Your task to perform on an android device: Open notification settings Image 0: 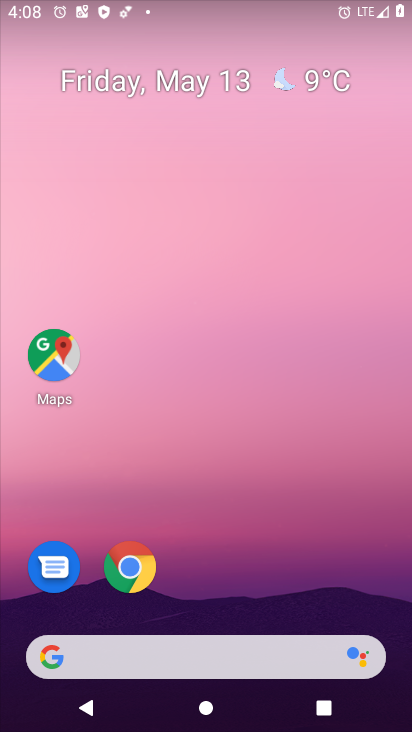
Step 0: drag from (303, 570) to (250, 16)
Your task to perform on an android device: Open notification settings Image 1: 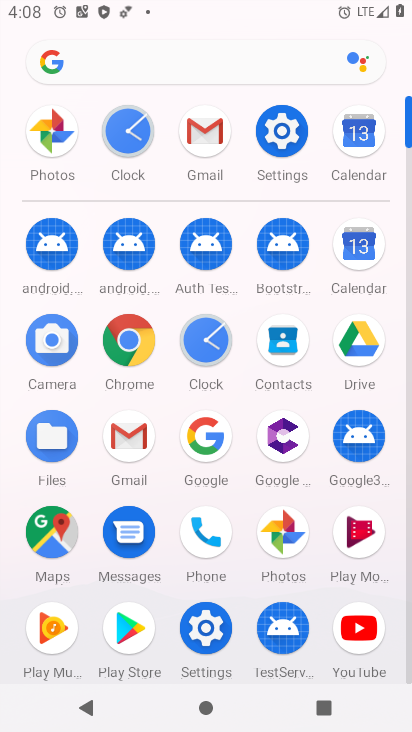
Step 1: click (276, 146)
Your task to perform on an android device: Open notification settings Image 2: 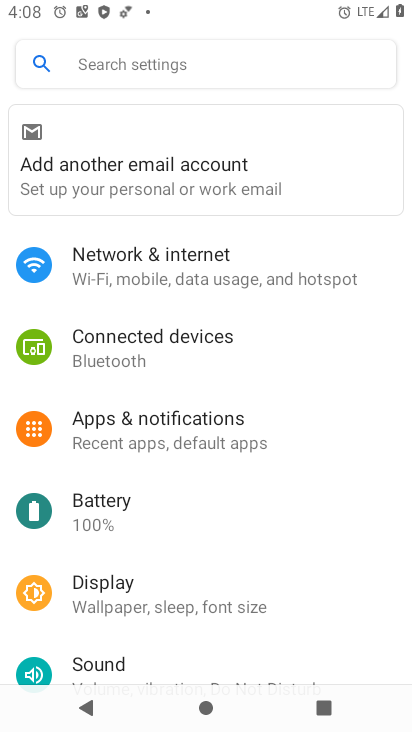
Step 2: click (173, 435)
Your task to perform on an android device: Open notification settings Image 3: 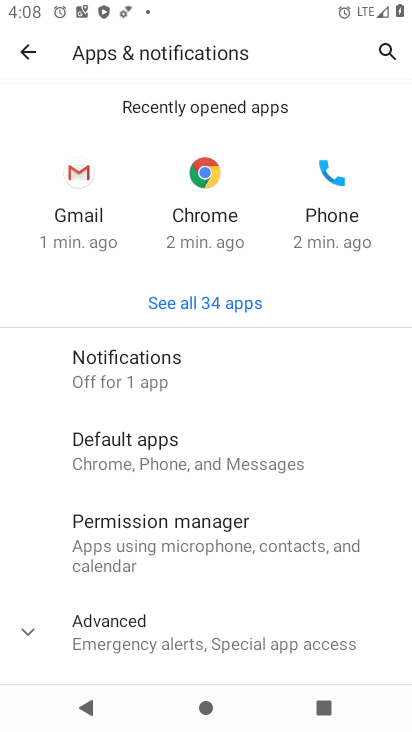
Step 3: task complete